Your task to perform on an android device: Open the map Image 0: 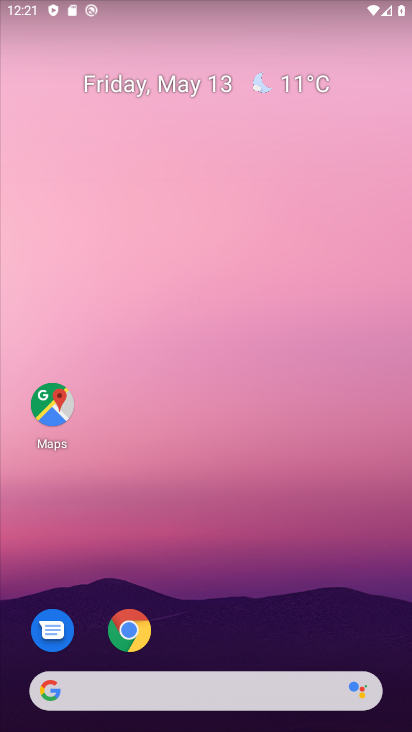
Step 0: click (62, 413)
Your task to perform on an android device: Open the map Image 1: 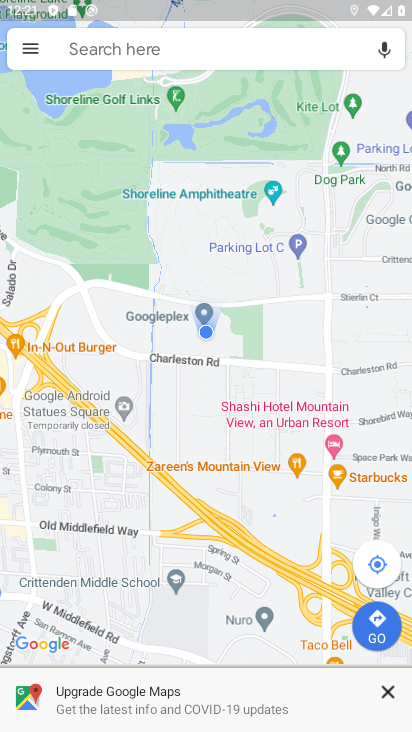
Step 1: task complete